Your task to perform on an android device: open device folders in google photos Image 0: 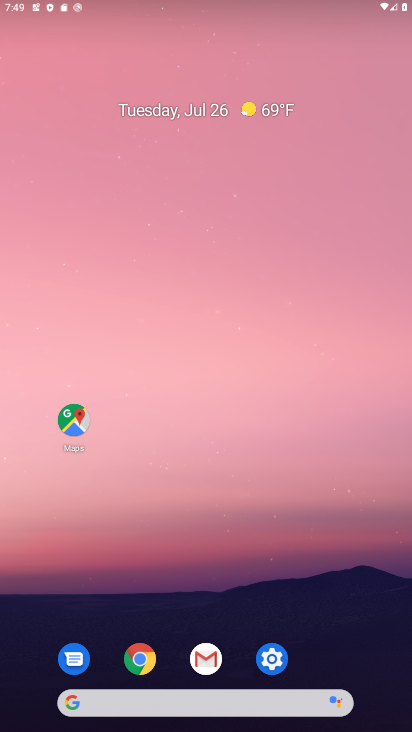
Step 0: press home button
Your task to perform on an android device: open device folders in google photos Image 1: 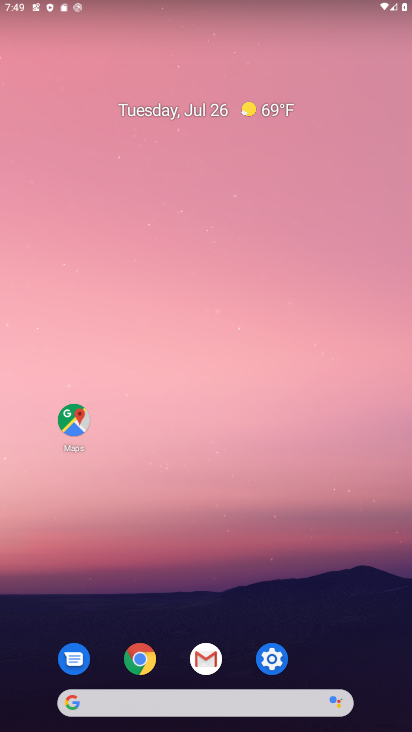
Step 1: drag from (277, 713) to (253, 112)
Your task to perform on an android device: open device folders in google photos Image 2: 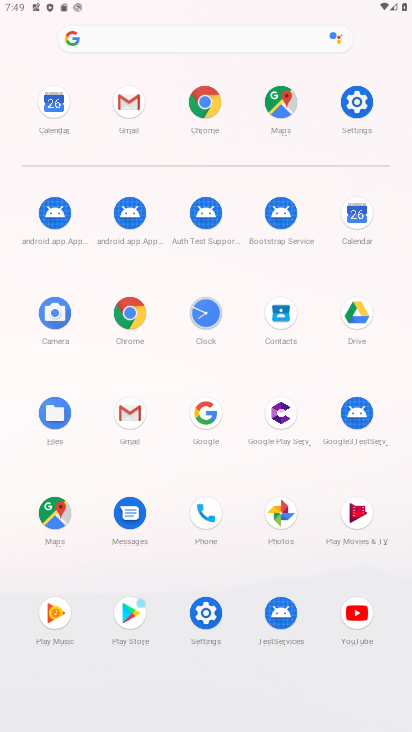
Step 2: click (275, 501)
Your task to perform on an android device: open device folders in google photos Image 3: 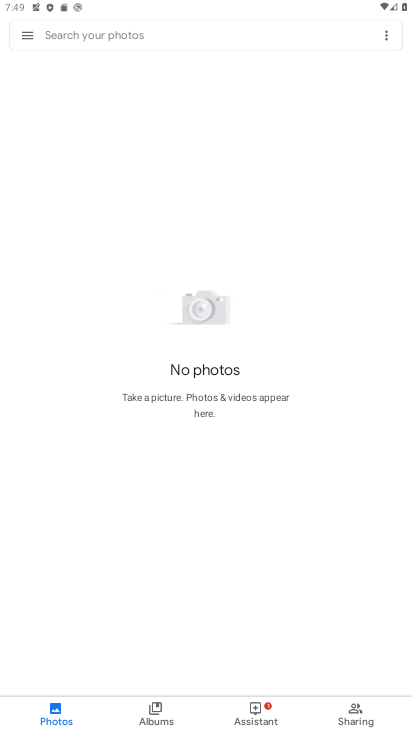
Step 3: click (99, 33)
Your task to perform on an android device: open device folders in google photos Image 4: 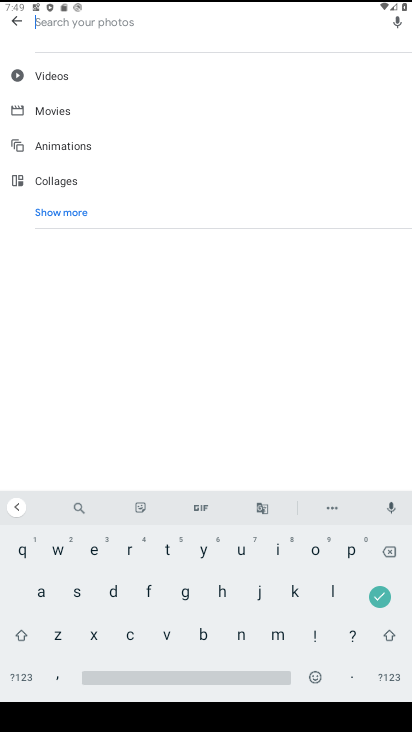
Step 4: click (113, 589)
Your task to perform on an android device: open device folders in google photos Image 5: 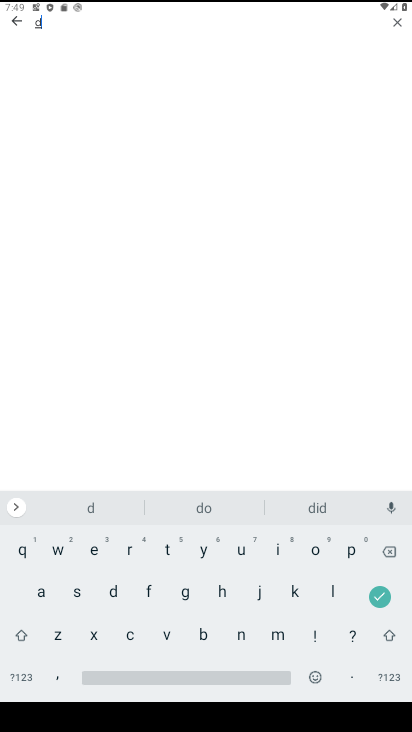
Step 5: click (90, 553)
Your task to perform on an android device: open device folders in google photos Image 6: 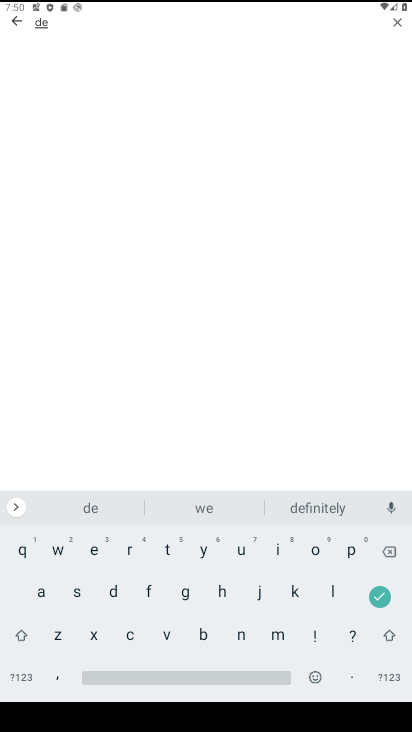
Step 6: click (166, 635)
Your task to perform on an android device: open device folders in google photos Image 7: 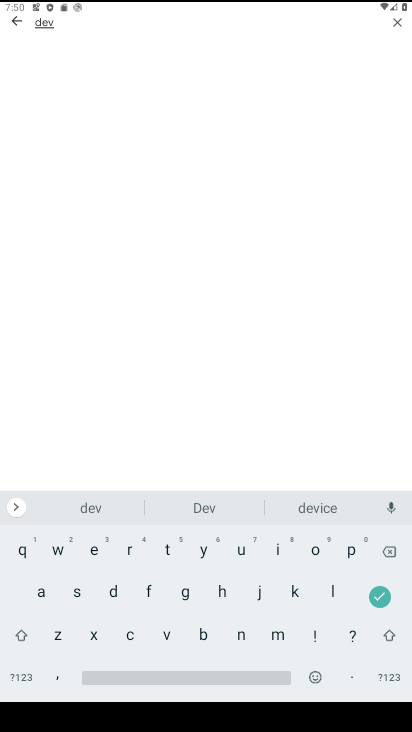
Step 7: click (278, 550)
Your task to perform on an android device: open device folders in google photos Image 8: 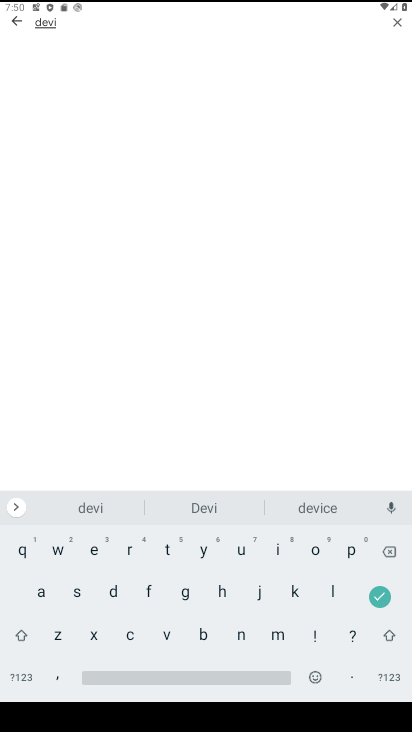
Step 8: click (320, 505)
Your task to perform on an android device: open device folders in google photos Image 9: 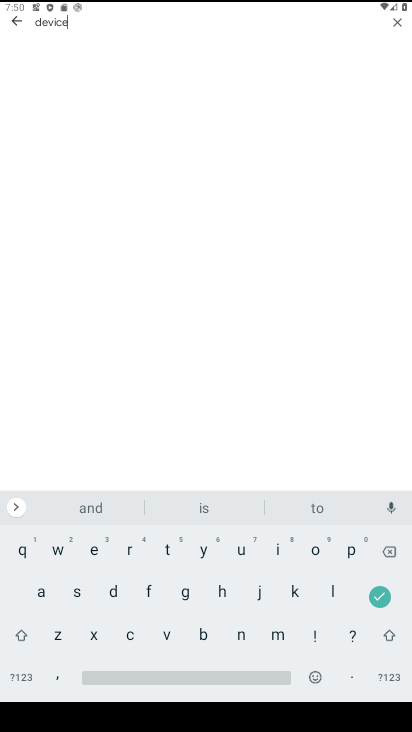
Step 9: click (147, 593)
Your task to perform on an android device: open device folders in google photos Image 10: 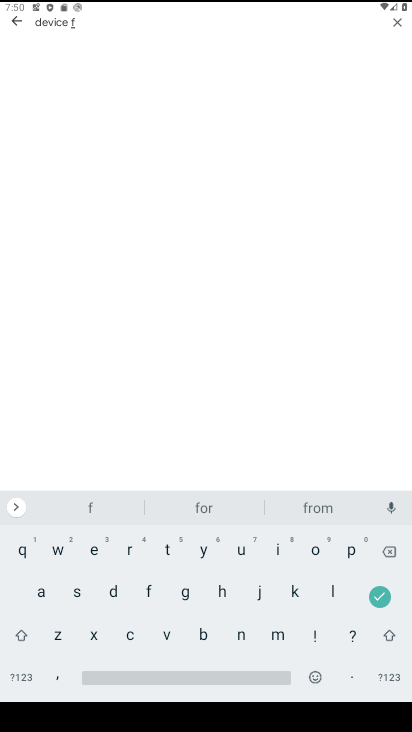
Step 10: click (313, 550)
Your task to perform on an android device: open device folders in google photos Image 11: 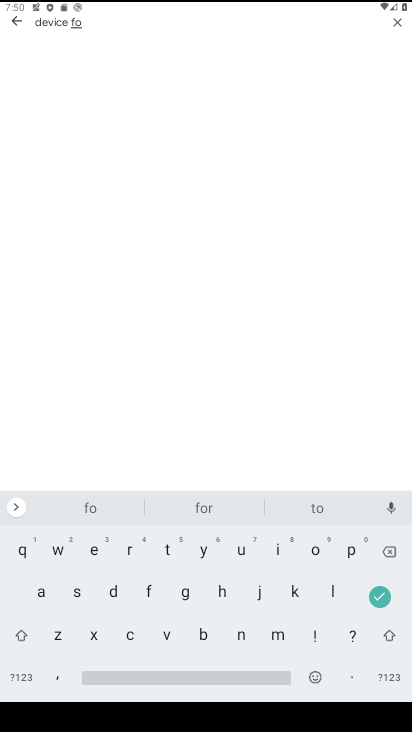
Step 11: click (338, 588)
Your task to perform on an android device: open device folders in google photos Image 12: 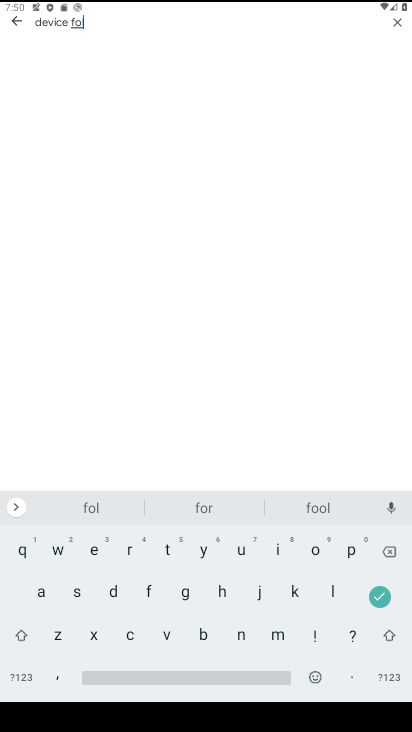
Step 12: click (113, 594)
Your task to perform on an android device: open device folders in google photos Image 13: 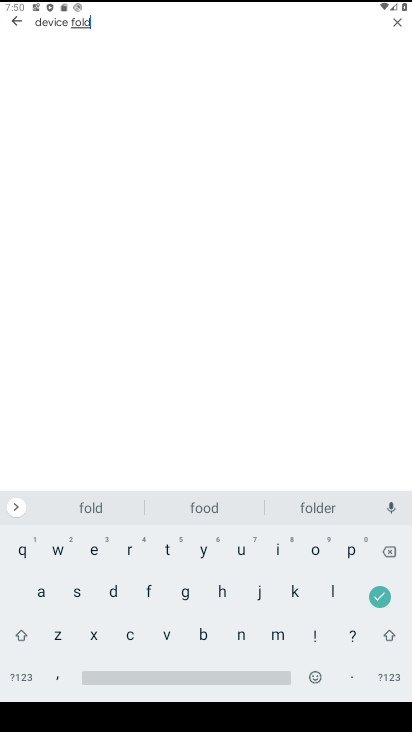
Step 13: click (306, 510)
Your task to perform on an android device: open device folders in google photos Image 14: 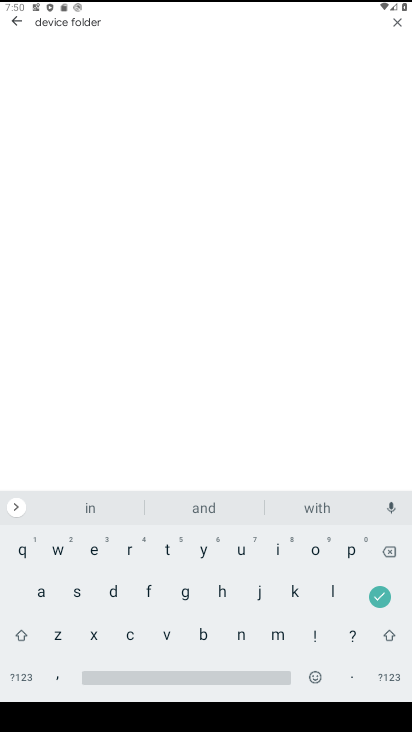
Step 14: click (381, 600)
Your task to perform on an android device: open device folders in google photos Image 15: 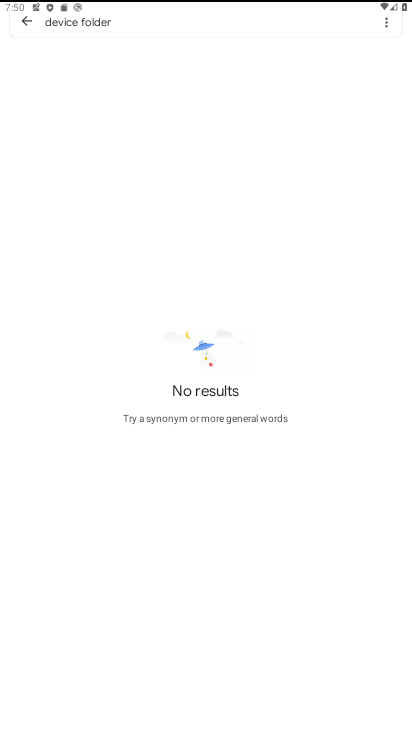
Step 15: task complete